Your task to perform on an android device: Search for Mexican restaurants on Maps Image 0: 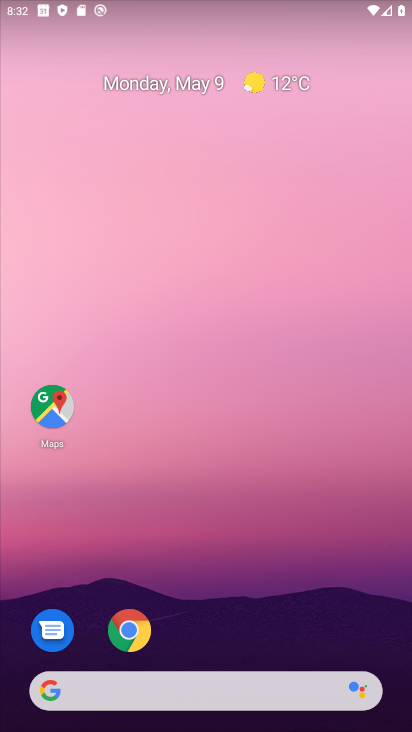
Step 0: drag from (216, 664) to (224, 571)
Your task to perform on an android device: Search for Mexican restaurants on Maps Image 1: 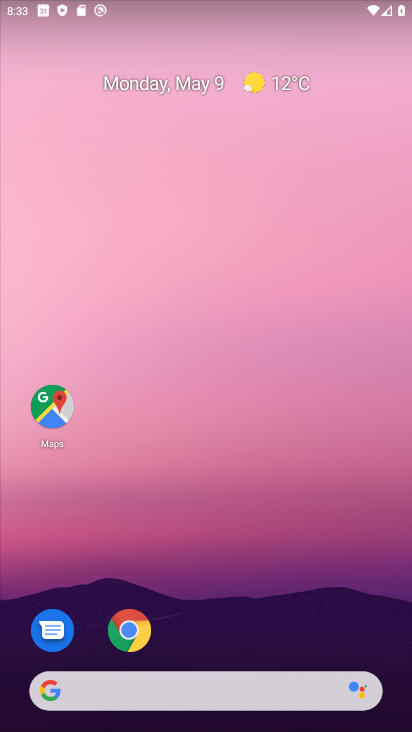
Step 1: click (60, 395)
Your task to perform on an android device: Search for Mexican restaurants on Maps Image 2: 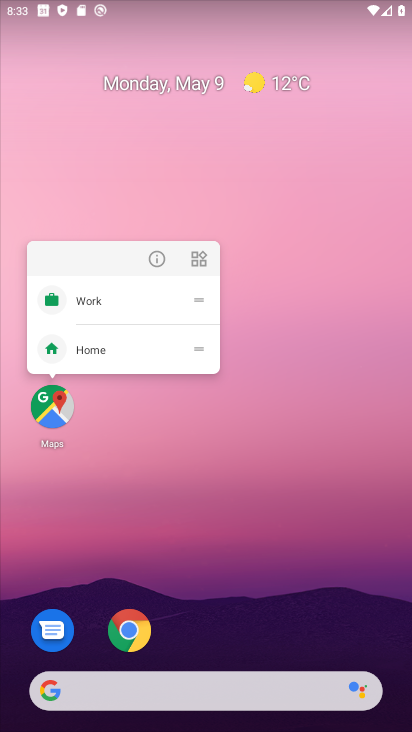
Step 2: click (65, 404)
Your task to perform on an android device: Search for Mexican restaurants on Maps Image 3: 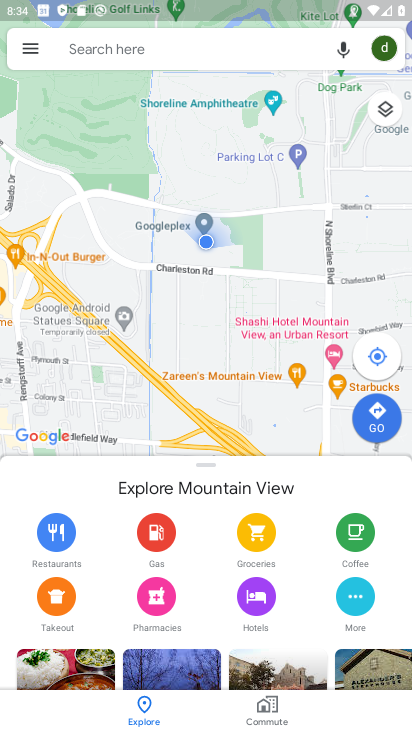
Step 3: click (165, 54)
Your task to perform on an android device: Search for Mexican restaurants on Maps Image 4: 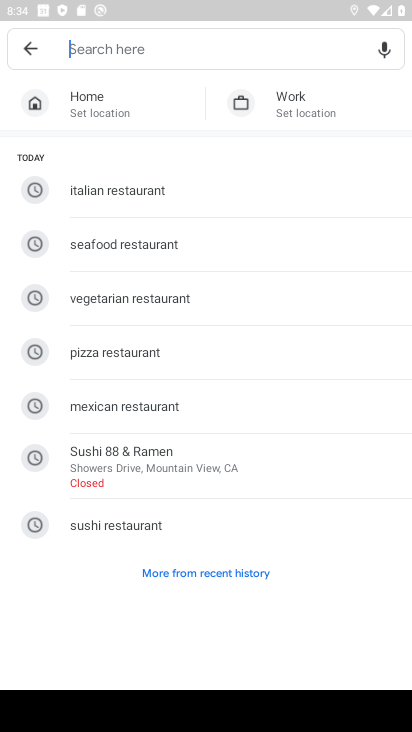
Step 4: click (125, 406)
Your task to perform on an android device: Search for Mexican restaurants on Maps Image 5: 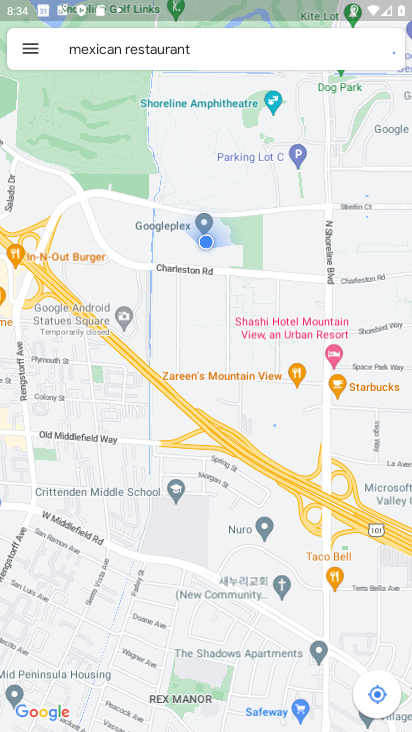
Step 5: task complete